Your task to perform on an android device: check storage Image 0: 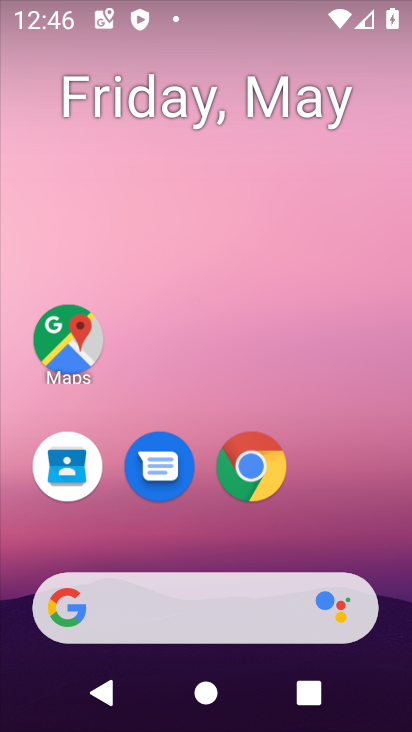
Step 0: drag from (198, 540) to (177, 19)
Your task to perform on an android device: check storage Image 1: 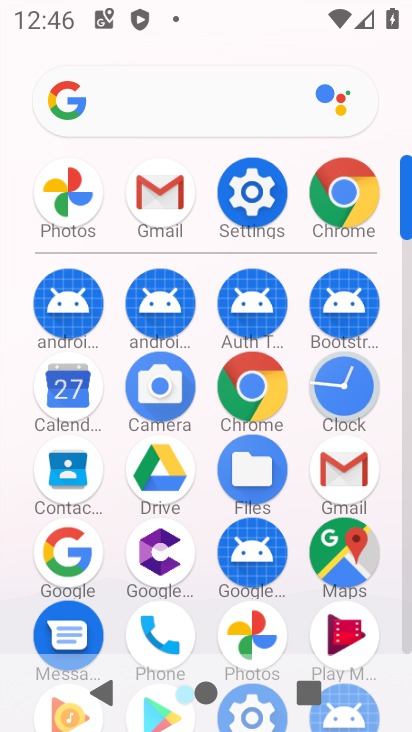
Step 1: click (247, 199)
Your task to perform on an android device: check storage Image 2: 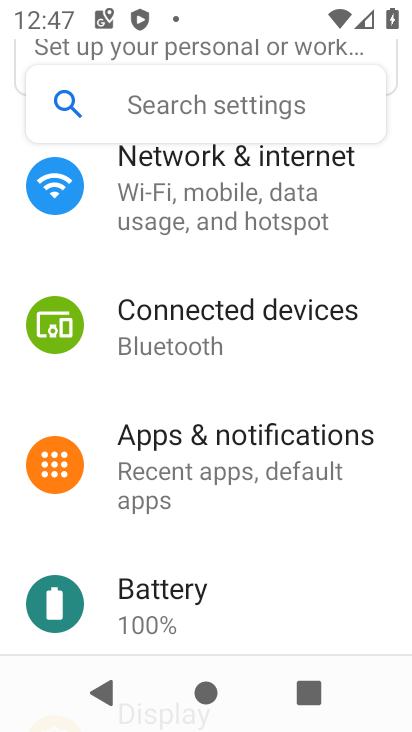
Step 2: drag from (176, 264) to (196, 608)
Your task to perform on an android device: check storage Image 3: 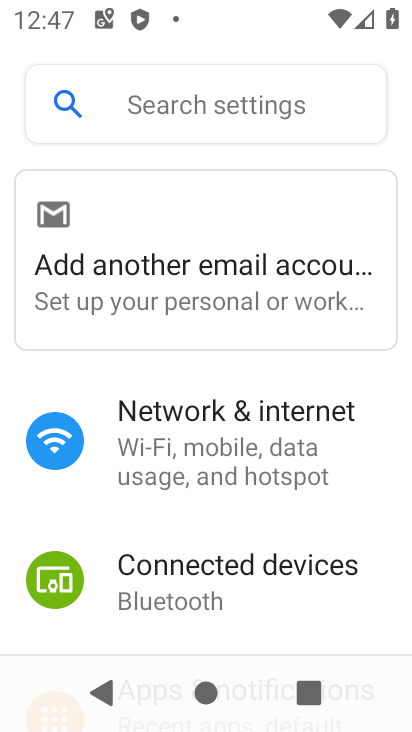
Step 3: drag from (159, 577) to (127, 270)
Your task to perform on an android device: check storage Image 4: 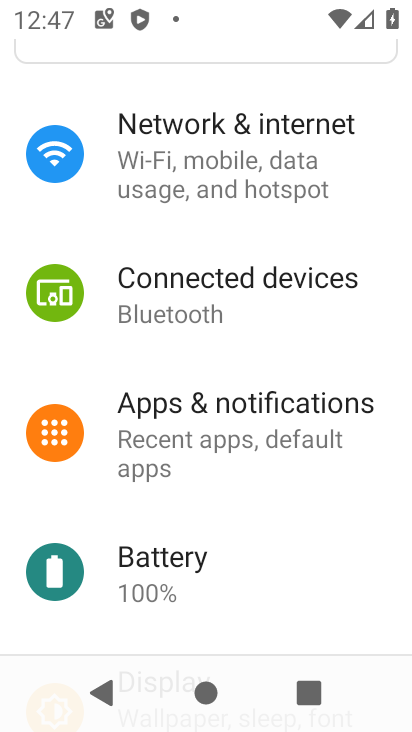
Step 4: drag from (175, 500) to (185, 134)
Your task to perform on an android device: check storage Image 5: 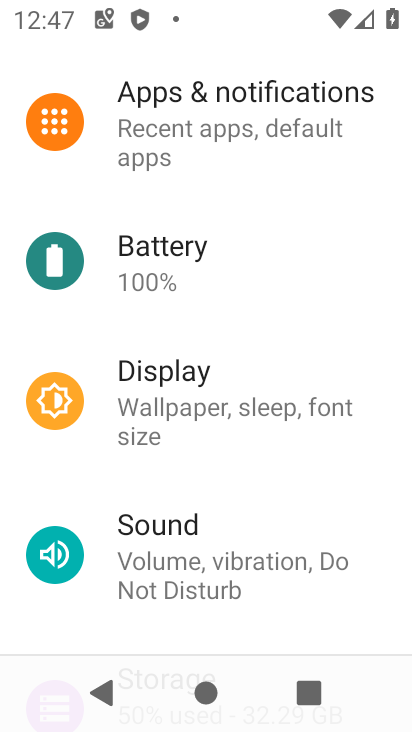
Step 5: drag from (195, 446) to (217, 63)
Your task to perform on an android device: check storage Image 6: 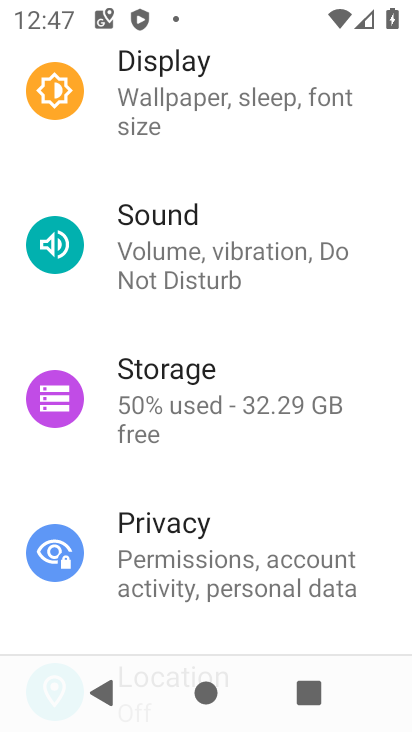
Step 6: click (190, 402)
Your task to perform on an android device: check storage Image 7: 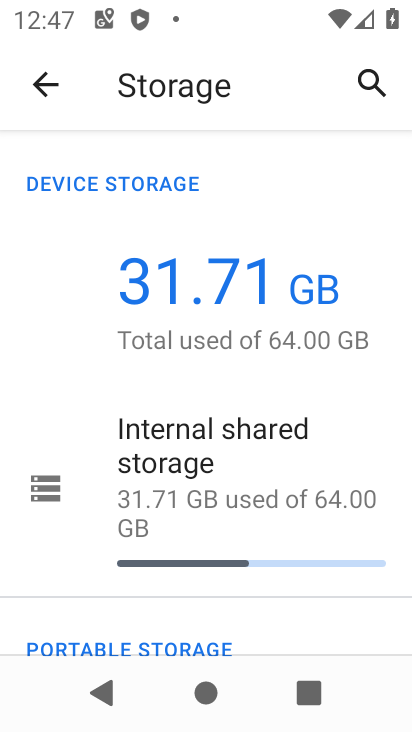
Step 7: task complete